Your task to perform on an android device: turn notification dots off Image 0: 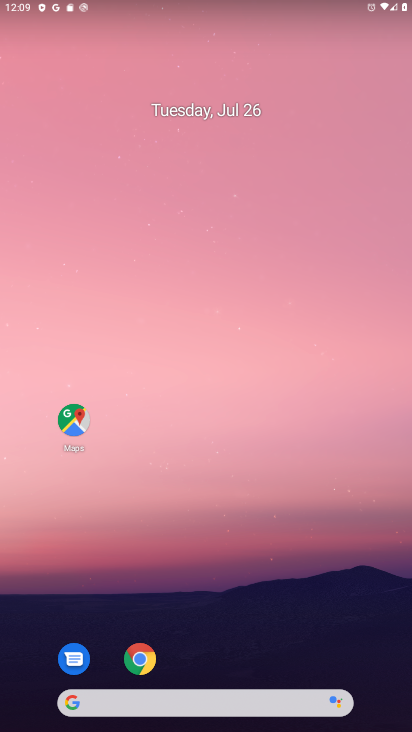
Step 0: drag from (237, 662) to (161, 157)
Your task to perform on an android device: turn notification dots off Image 1: 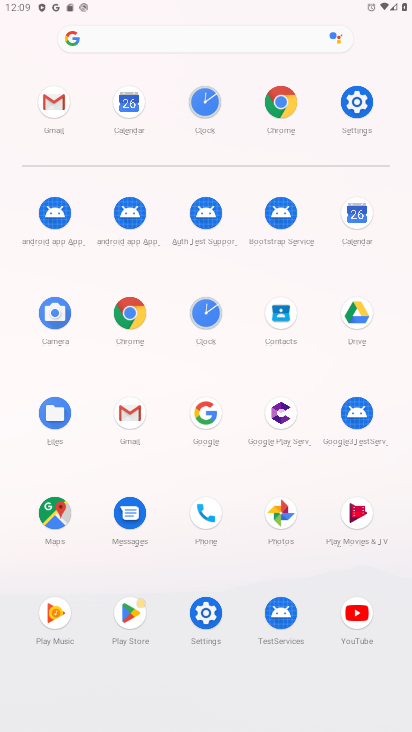
Step 1: click (207, 614)
Your task to perform on an android device: turn notification dots off Image 2: 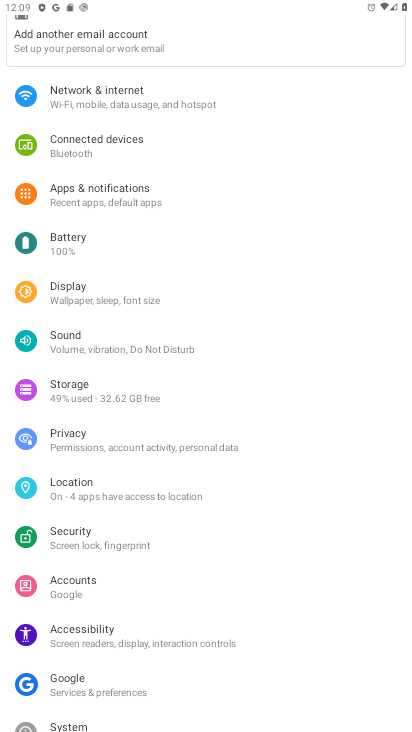
Step 2: click (93, 185)
Your task to perform on an android device: turn notification dots off Image 3: 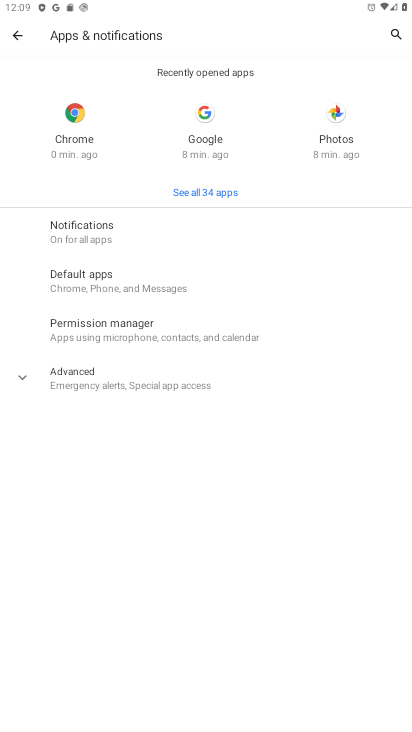
Step 3: click (82, 228)
Your task to perform on an android device: turn notification dots off Image 4: 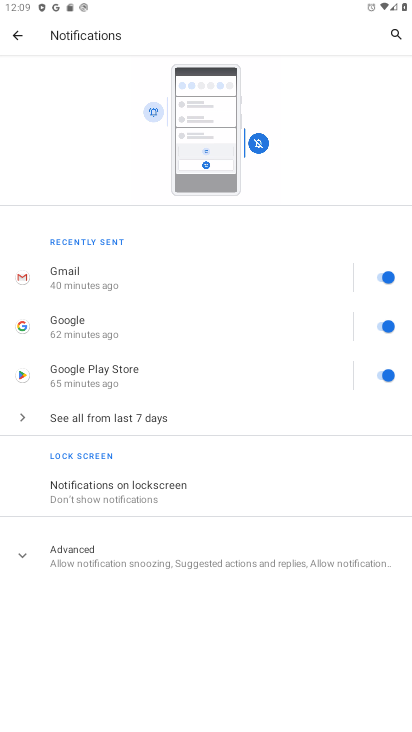
Step 4: click (26, 553)
Your task to perform on an android device: turn notification dots off Image 5: 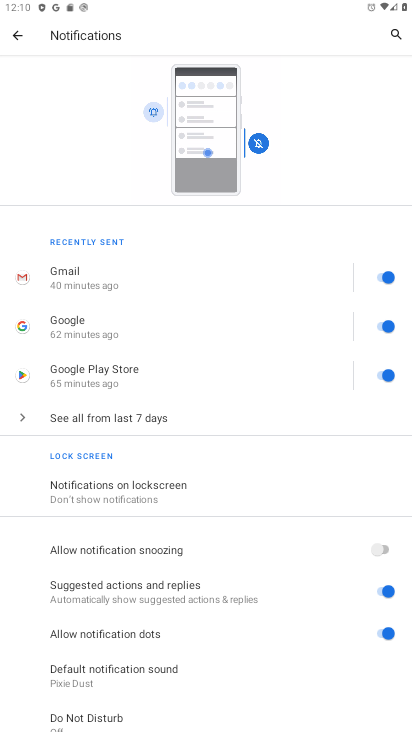
Step 5: click (388, 630)
Your task to perform on an android device: turn notification dots off Image 6: 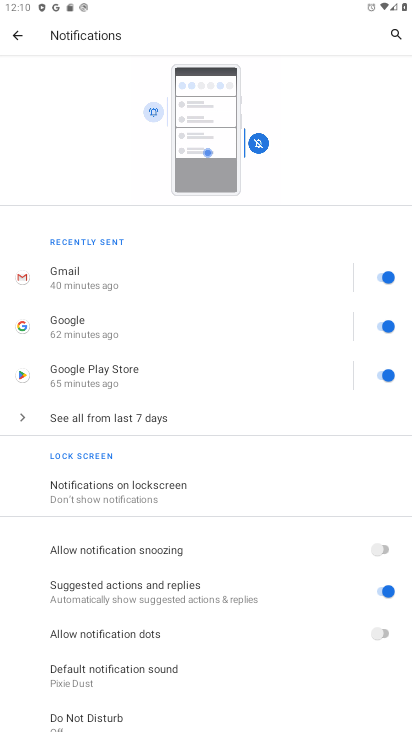
Step 6: task complete